Your task to perform on an android device: set the stopwatch Image 0: 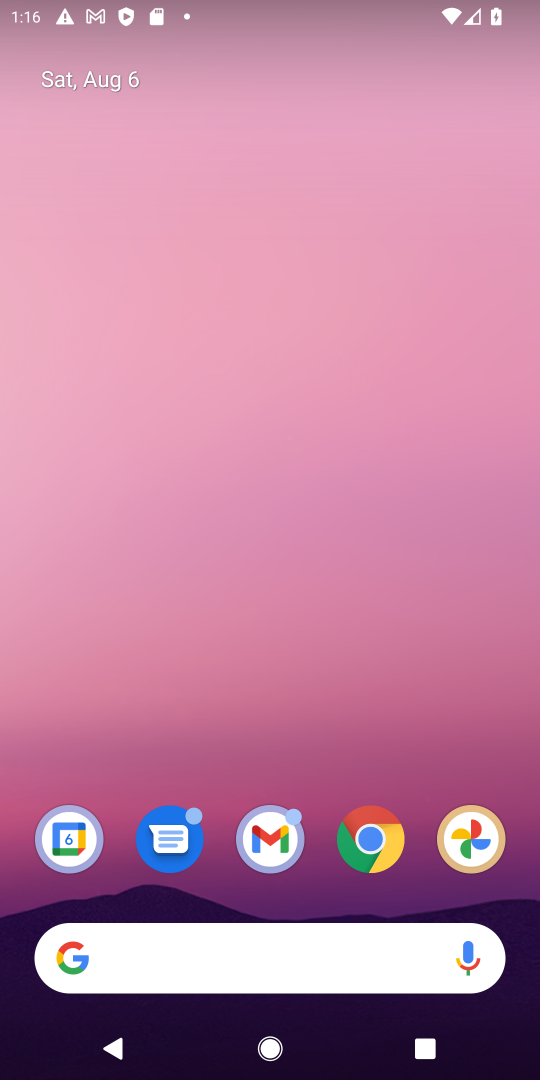
Step 0: drag from (322, 1030) to (332, 114)
Your task to perform on an android device: set the stopwatch Image 1: 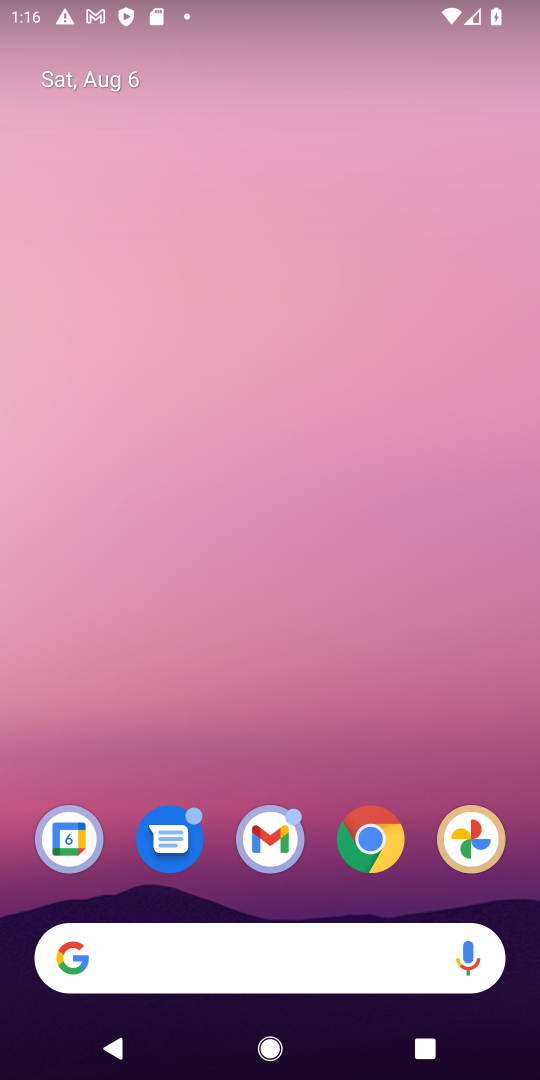
Step 1: drag from (321, 1024) to (318, 79)
Your task to perform on an android device: set the stopwatch Image 2: 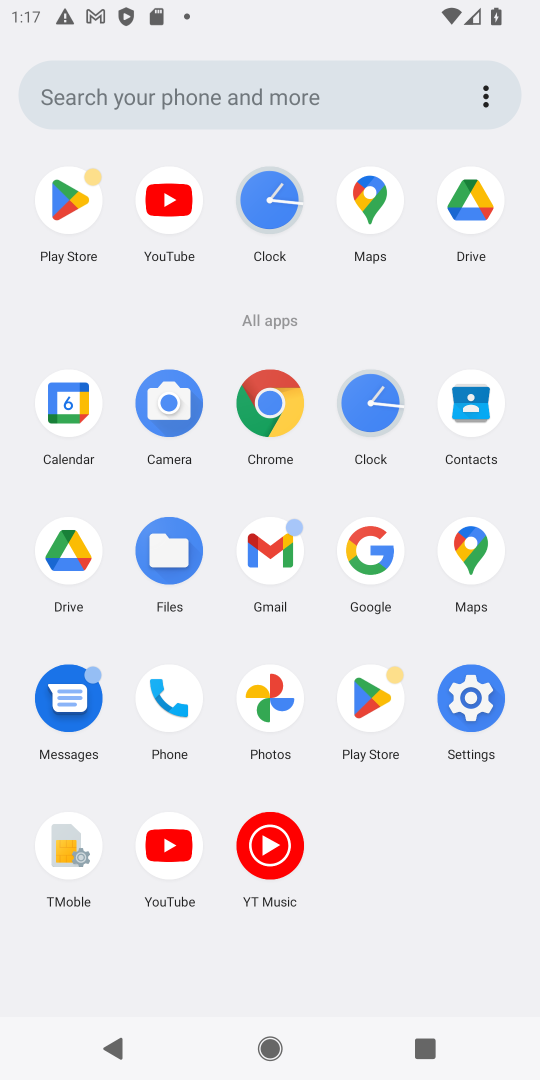
Step 2: click (284, 199)
Your task to perform on an android device: set the stopwatch Image 3: 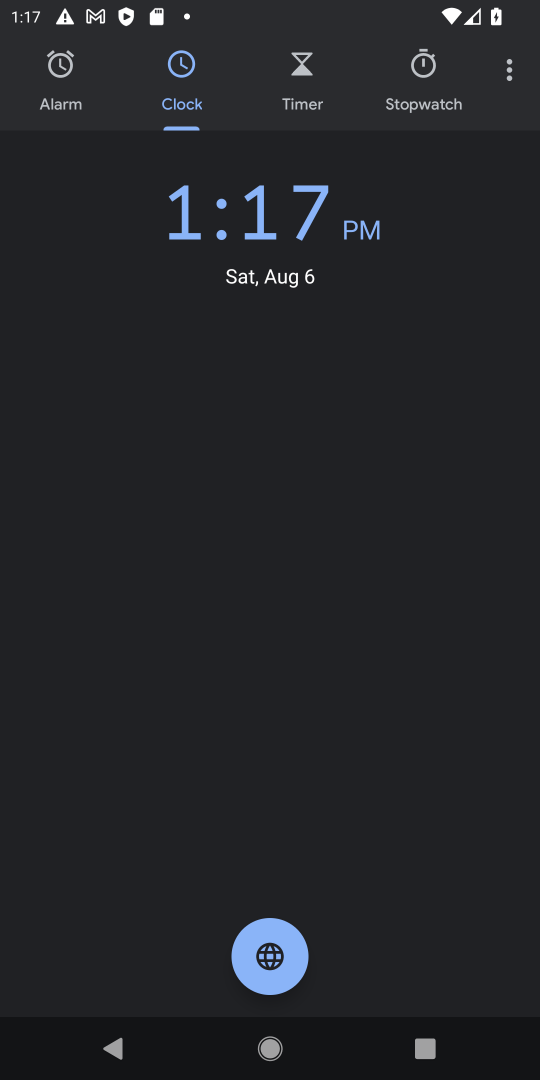
Step 3: click (413, 83)
Your task to perform on an android device: set the stopwatch Image 4: 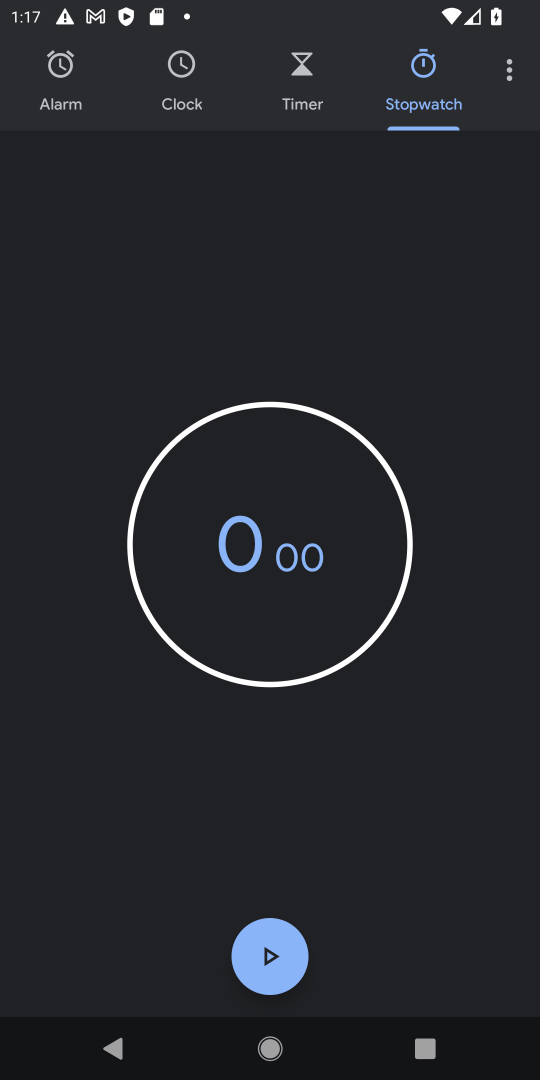
Step 4: task complete